Your task to perform on an android device: Open Wikipedia Image 0: 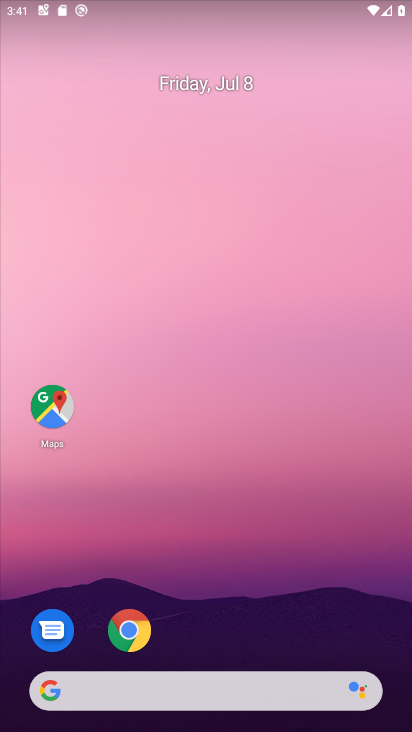
Step 0: drag from (304, 494) to (277, 45)
Your task to perform on an android device: Open Wikipedia Image 1: 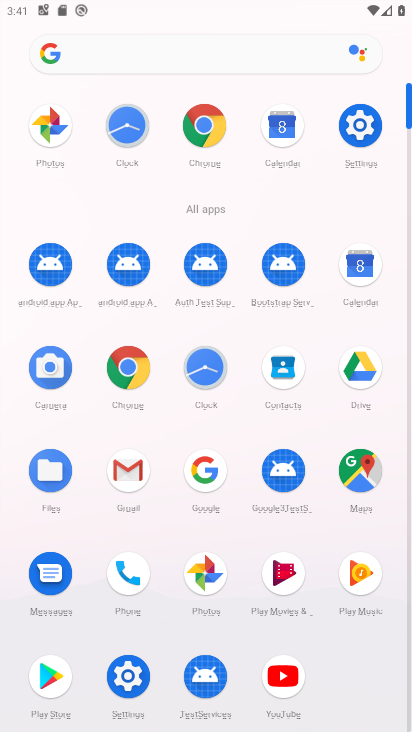
Step 1: click (207, 122)
Your task to perform on an android device: Open Wikipedia Image 2: 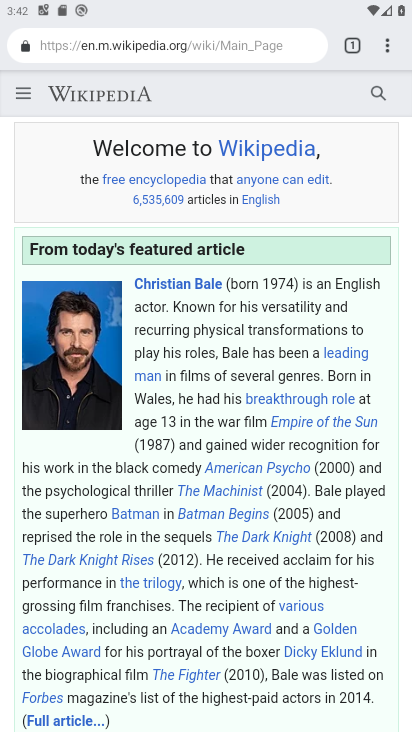
Step 2: task complete